Your task to perform on an android device: set the timer Image 0: 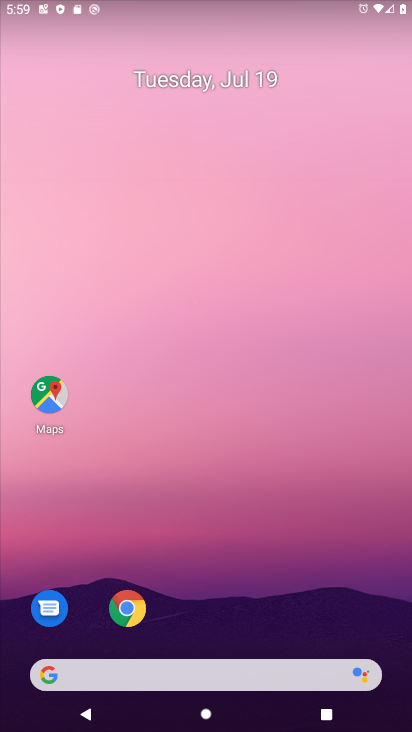
Step 0: drag from (303, 663) to (292, 20)
Your task to perform on an android device: set the timer Image 1: 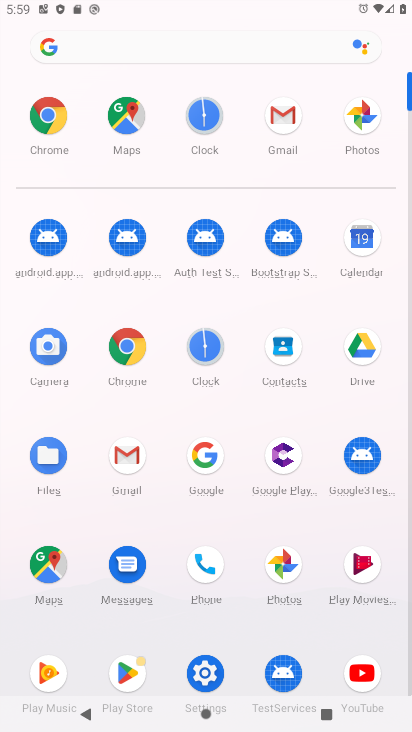
Step 1: click (197, 331)
Your task to perform on an android device: set the timer Image 2: 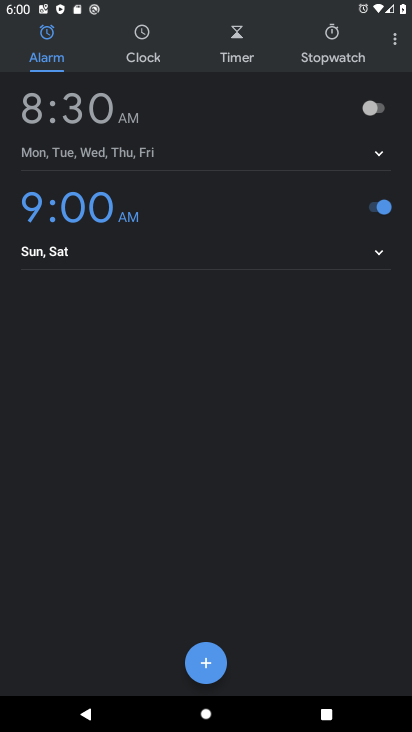
Step 2: click (251, 38)
Your task to perform on an android device: set the timer Image 3: 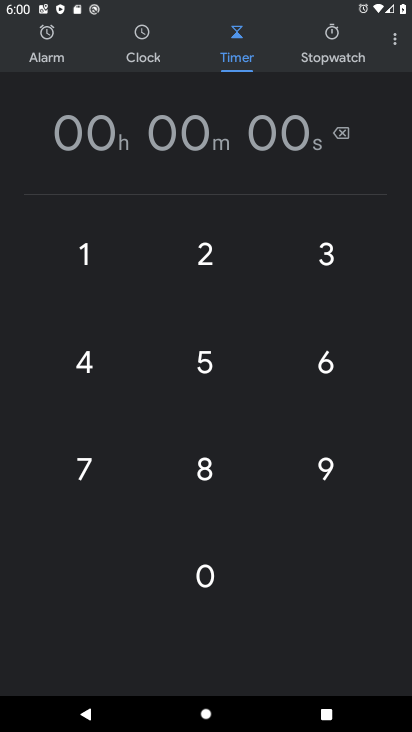
Step 3: click (319, 471)
Your task to perform on an android device: set the timer Image 4: 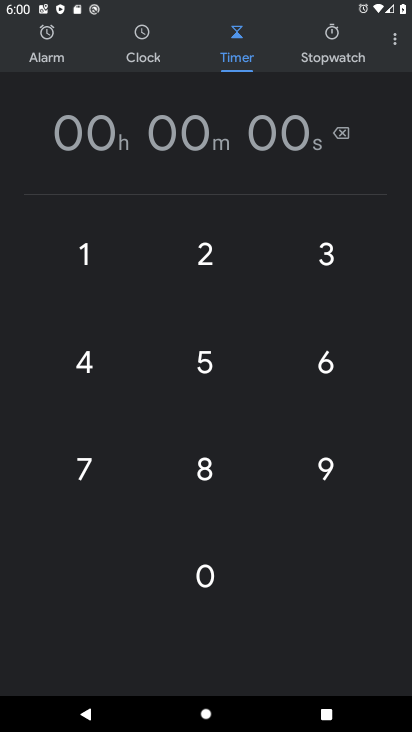
Step 4: click (319, 471)
Your task to perform on an android device: set the timer Image 5: 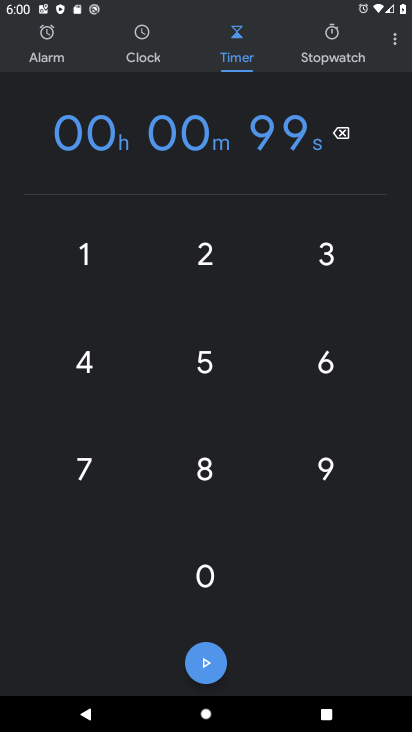
Step 5: click (319, 471)
Your task to perform on an android device: set the timer Image 6: 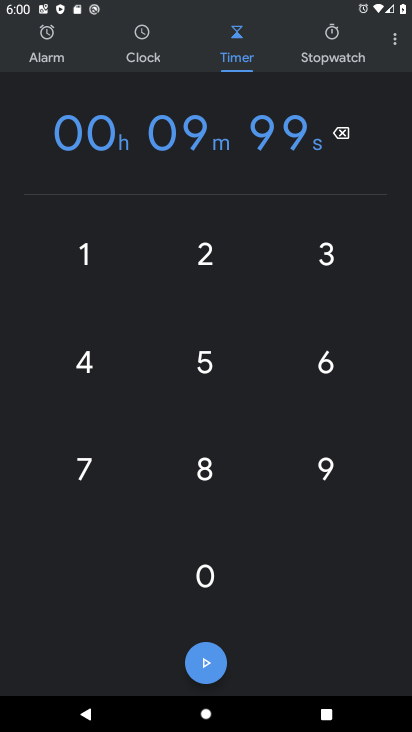
Step 6: click (319, 471)
Your task to perform on an android device: set the timer Image 7: 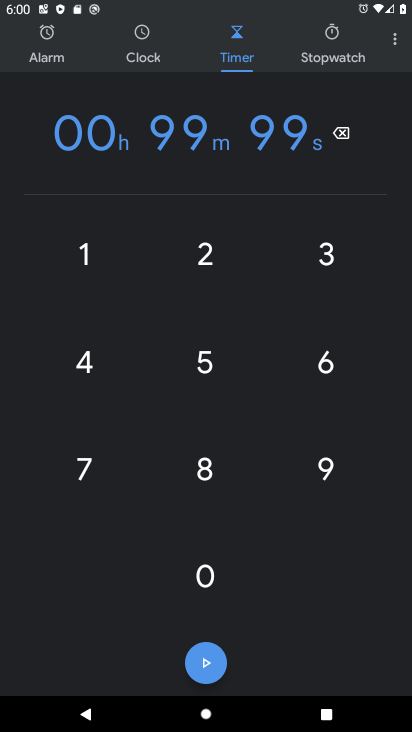
Step 7: click (319, 471)
Your task to perform on an android device: set the timer Image 8: 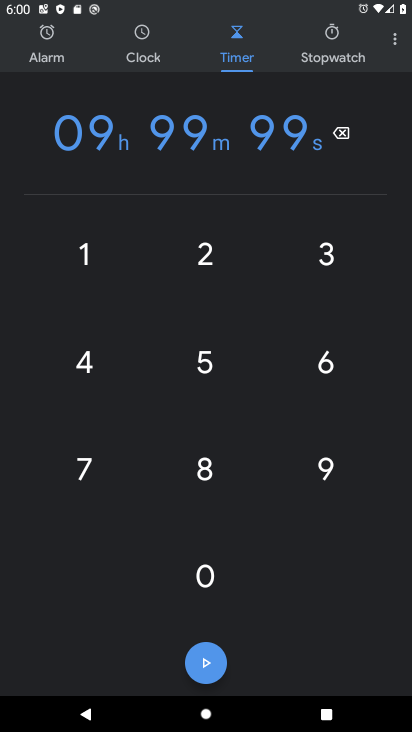
Step 8: click (319, 471)
Your task to perform on an android device: set the timer Image 9: 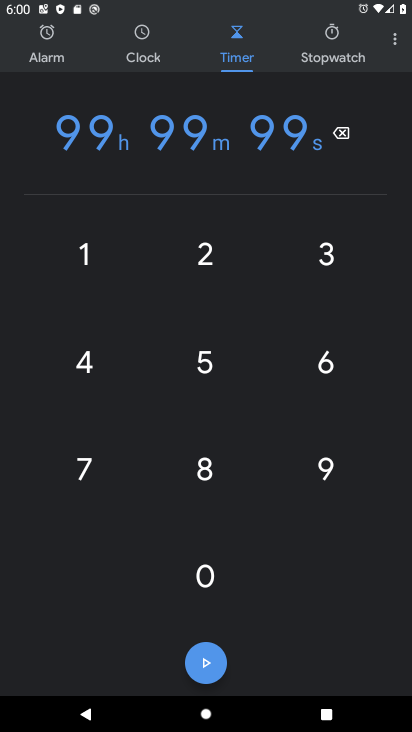
Step 9: click (208, 651)
Your task to perform on an android device: set the timer Image 10: 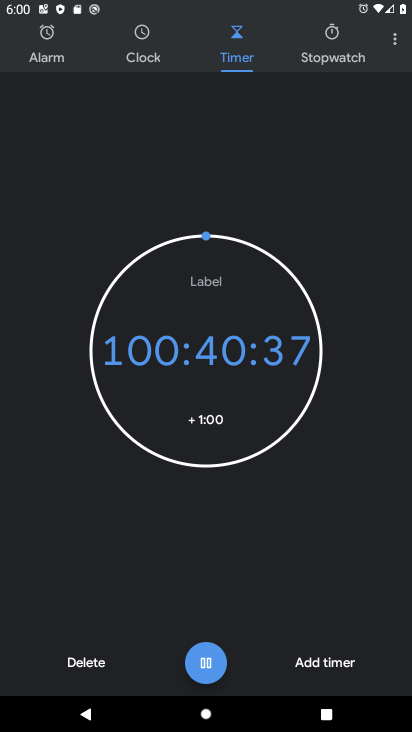
Step 10: task complete